Your task to perform on an android device: change timer sound Image 0: 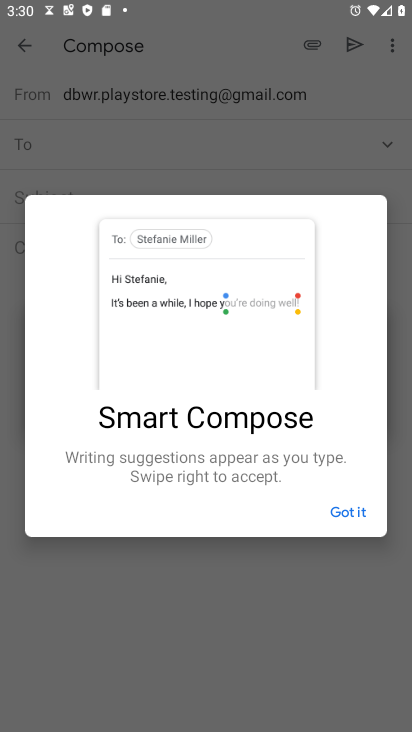
Step 0: press home button
Your task to perform on an android device: change timer sound Image 1: 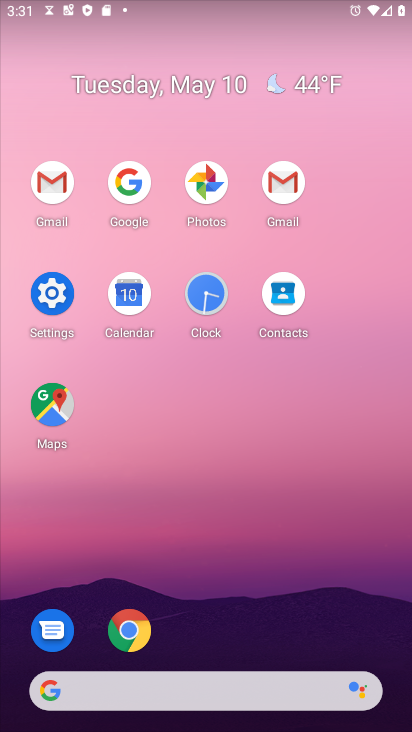
Step 1: click (215, 286)
Your task to perform on an android device: change timer sound Image 2: 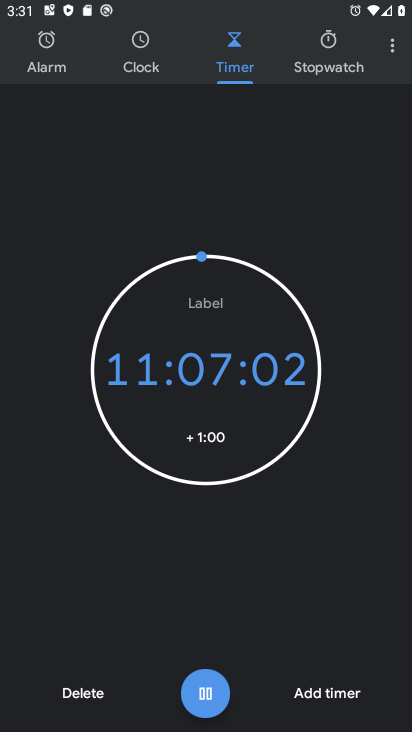
Step 2: click (386, 38)
Your task to perform on an android device: change timer sound Image 3: 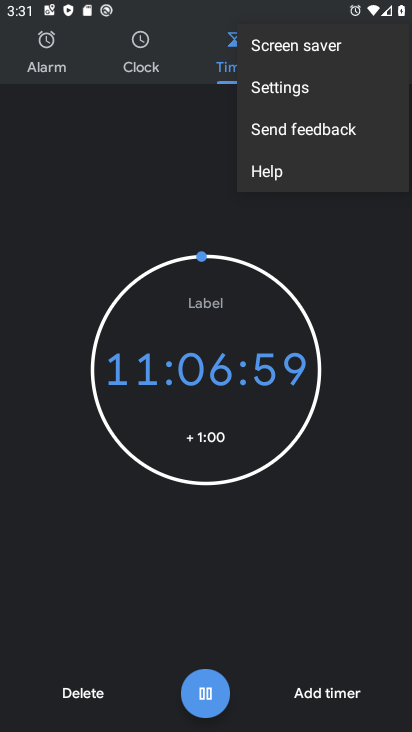
Step 3: click (300, 84)
Your task to perform on an android device: change timer sound Image 4: 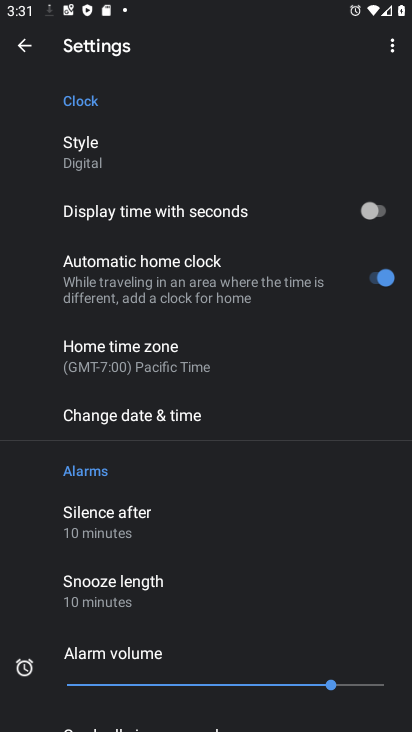
Step 4: drag from (223, 575) to (278, 159)
Your task to perform on an android device: change timer sound Image 5: 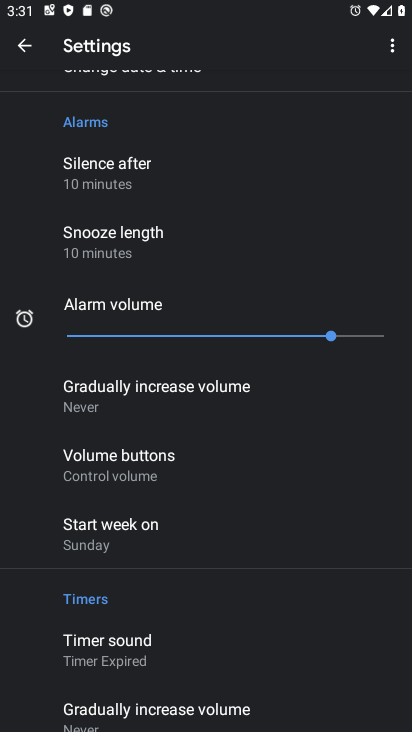
Step 5: click (149, 645)
Your task to perform on an android device: change timer sound Image 6: 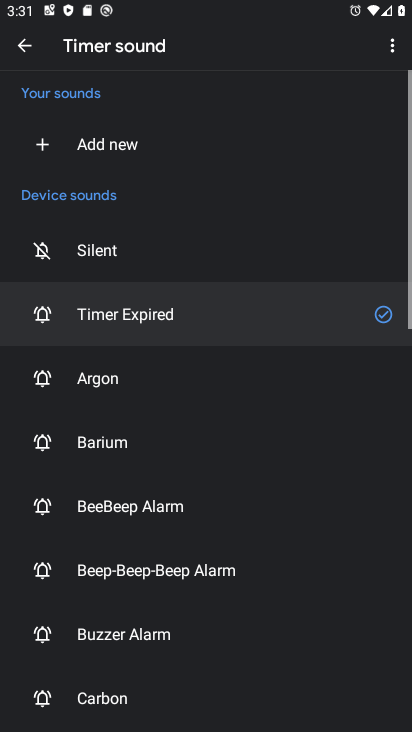
Step 6: click (60, 384)
Your task to perform on an android device: change timer sound Image 7: 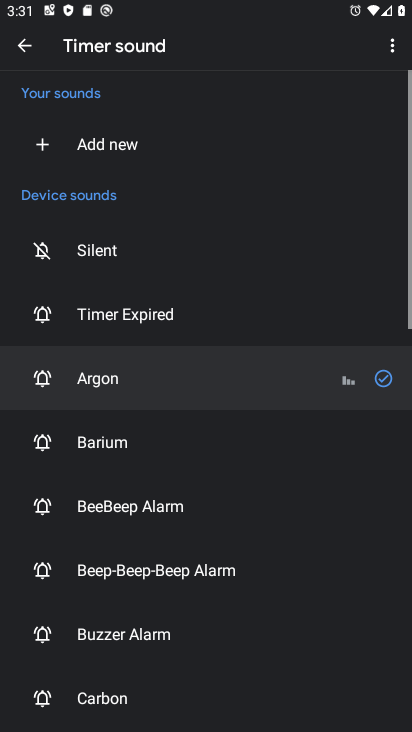
Step 7: task complete